Your task to perform on an android device: open a bookmark in the chrome app Image 0: 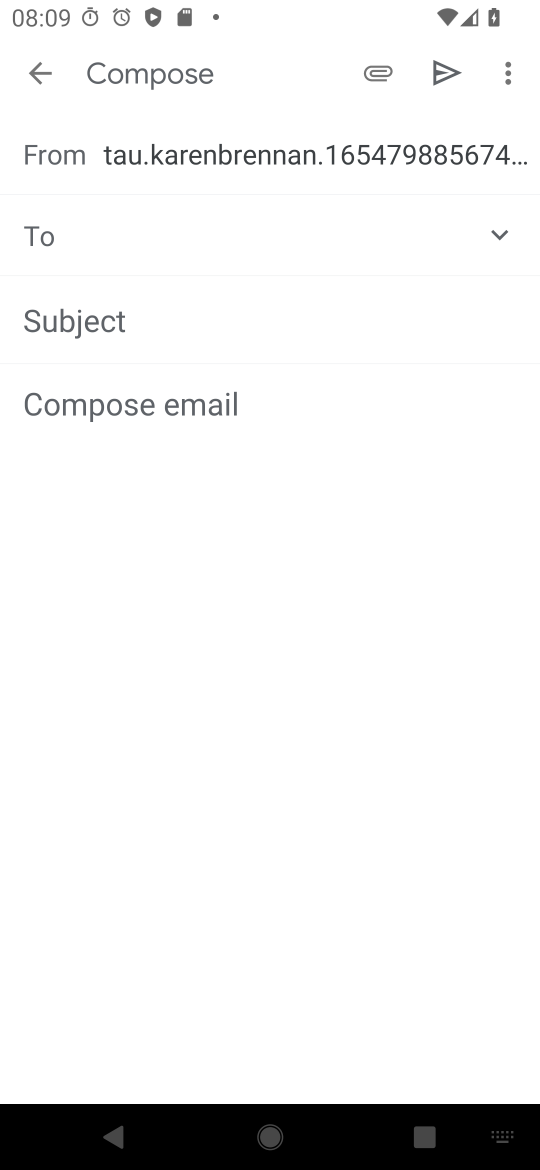
Step 0: press home button
Your task to perform on an android device: open a bookmark in the chrome app Image 1: 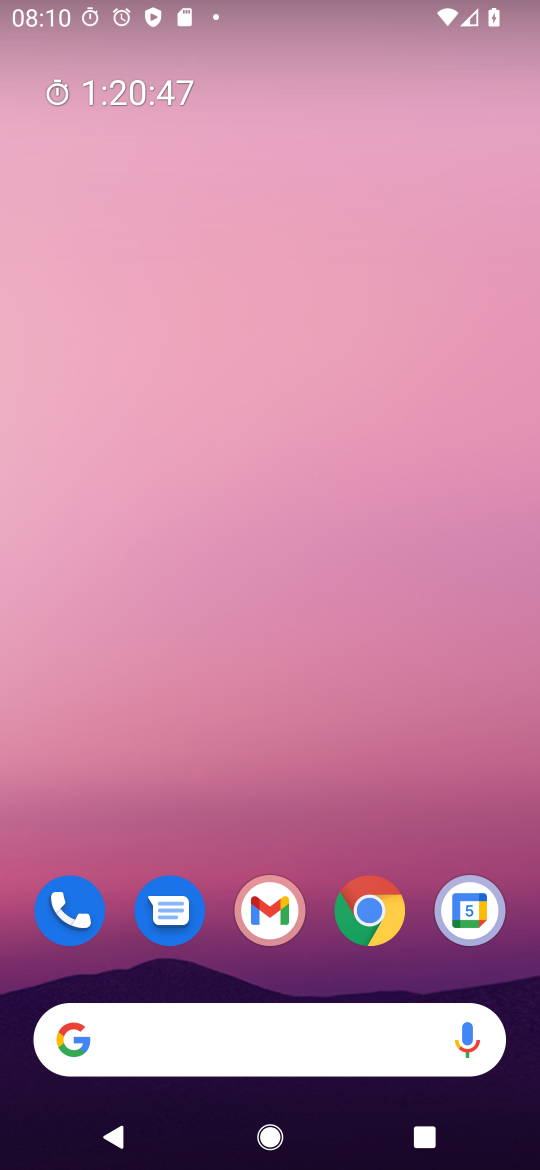
Step 1: drag from (278, 1035) to (291, 29)
Your task to perform on an android device: open a bookmark in the chrome app Image 2: 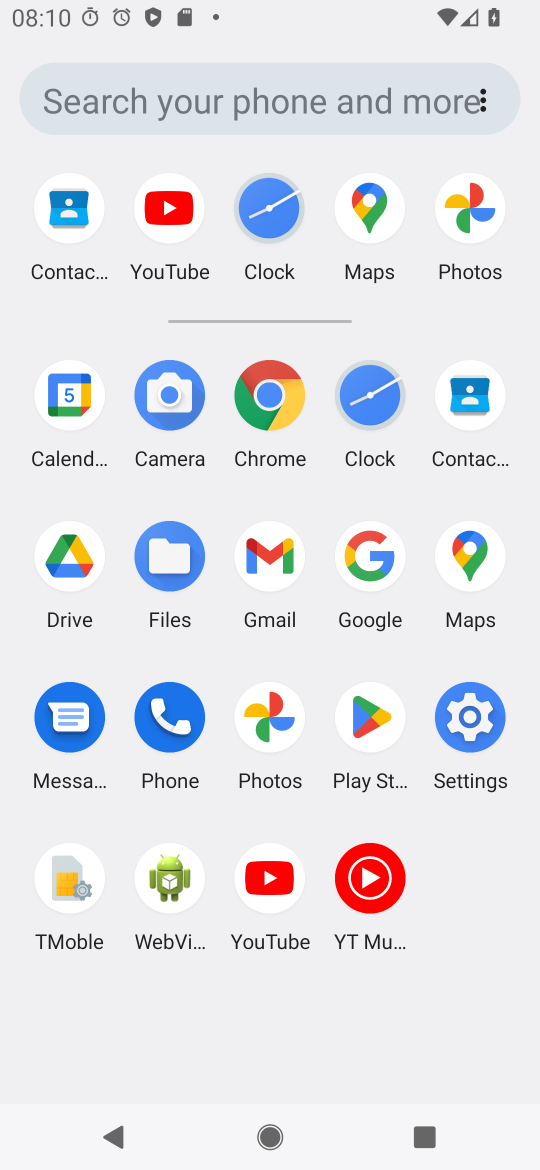
Step 2: click (273, 389)
Your task to perform on an android device: open a bookmark in the chrome app Image 3: 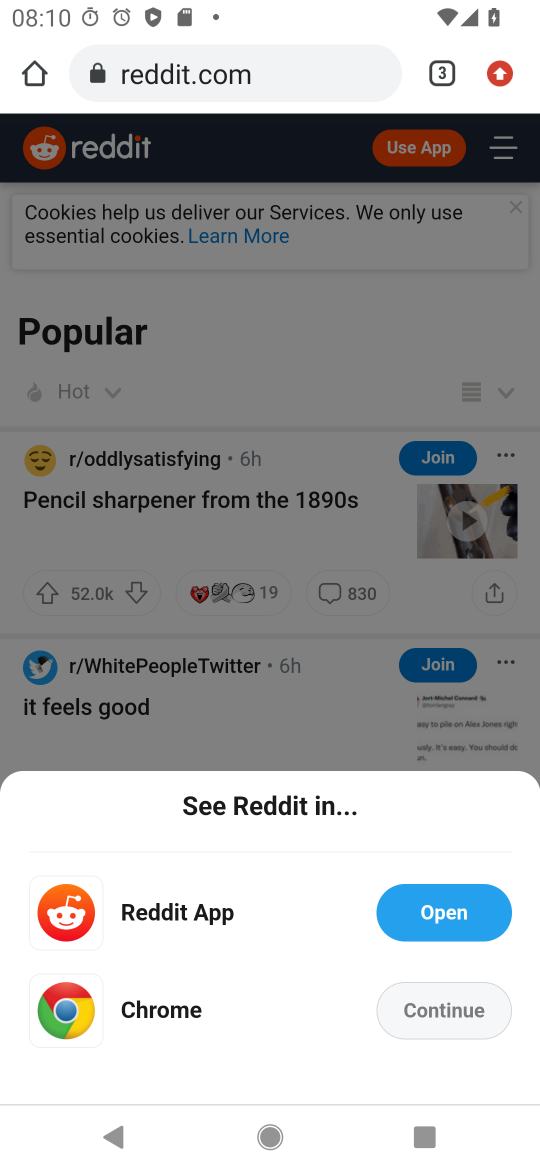
Step 3: click (504, 71)
Your task to perform on an android device: open a bookmark in the chrome app Image 4: 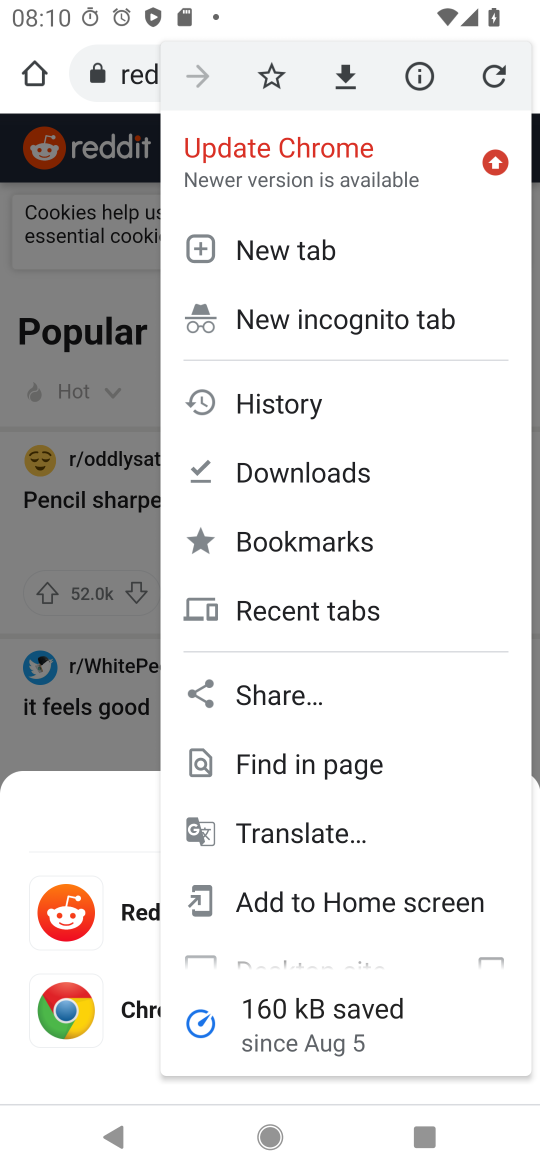
Step 4: click (297, 529)
Your task to perform on an android device: open a bookmark in the chrome app Image 5: 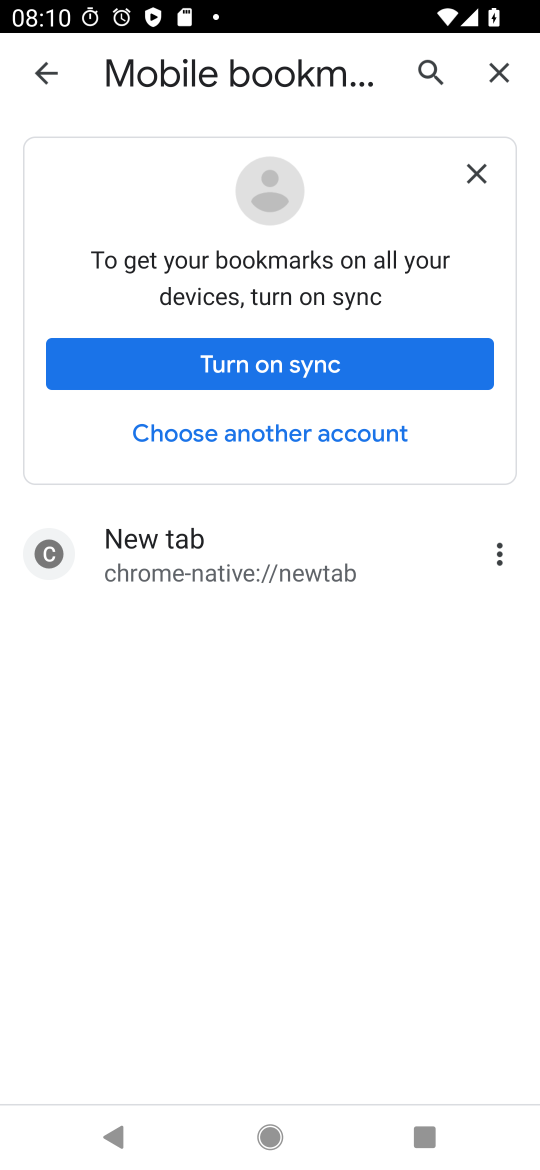
Step 5: task complete